Your task to perform on an android device: Open settings on Google Maps Image 0: 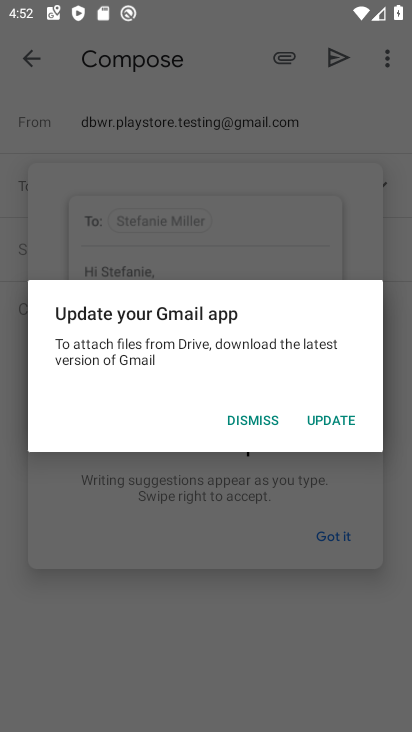
Step 0: press home button
Your task to perform on an android device: Open settings on Google Maps Image 1: 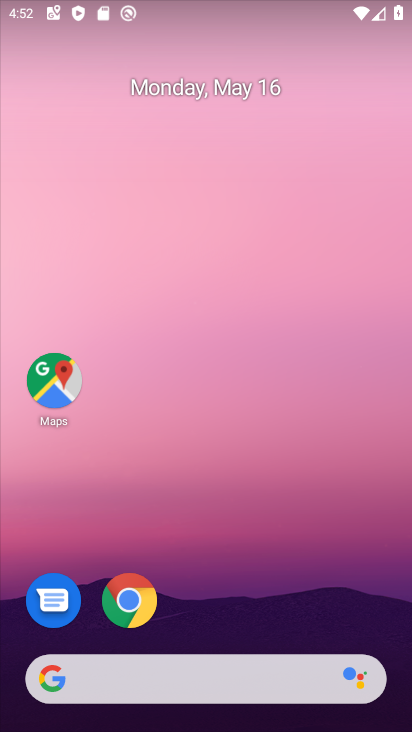
Step 1: drag from (202, 626) to (193, 3)
Your task to perform on an android device: Open settings on Google Maps Image 2: 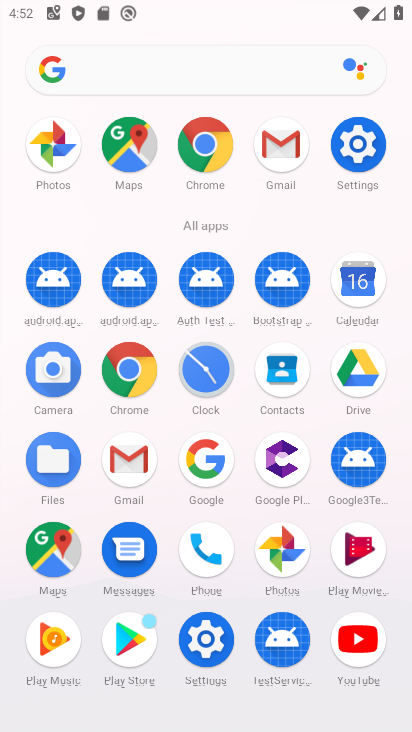
Step 2: click (48, 552)
Your task to perform on an android device: Open settings on Google Maps Image 3: 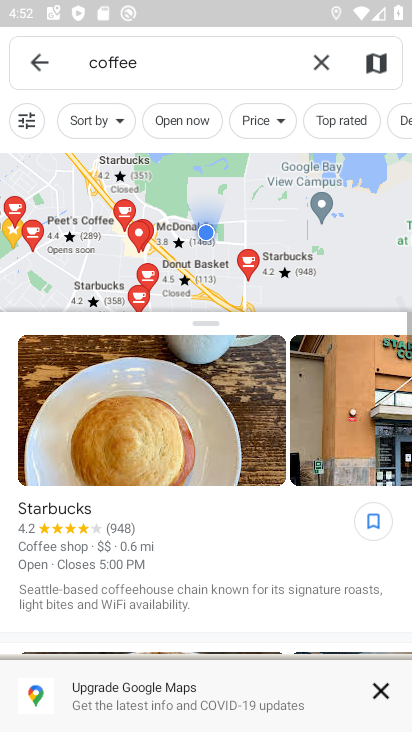
Step 3: click (32, 73)
Your task to perform on an android device: Open settings on Google Maps Image 4: 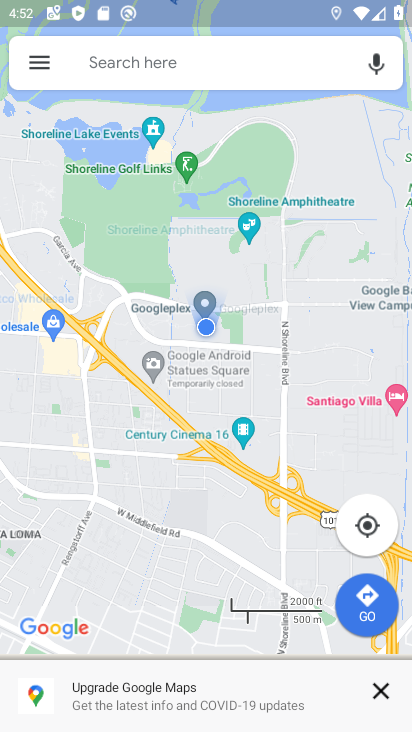
Step 4: click (33, 69)
Your task to perform on an android device: Open settings on Google Maps Image 5: 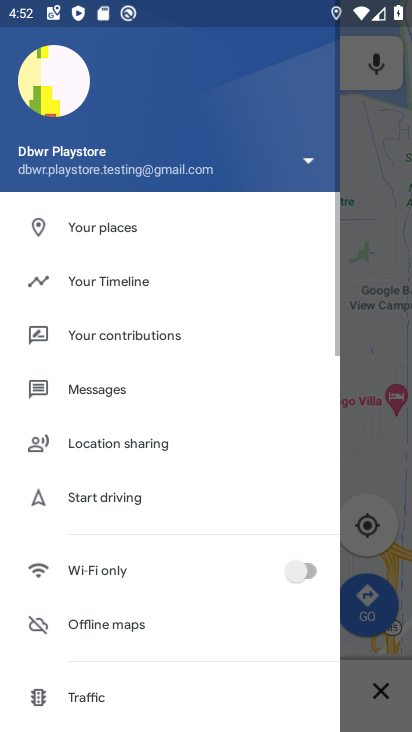
Step 5: drag from (97, 525) to (65, 134)
Your task to perform on an android device: Open settings on Google Maps Image 6: 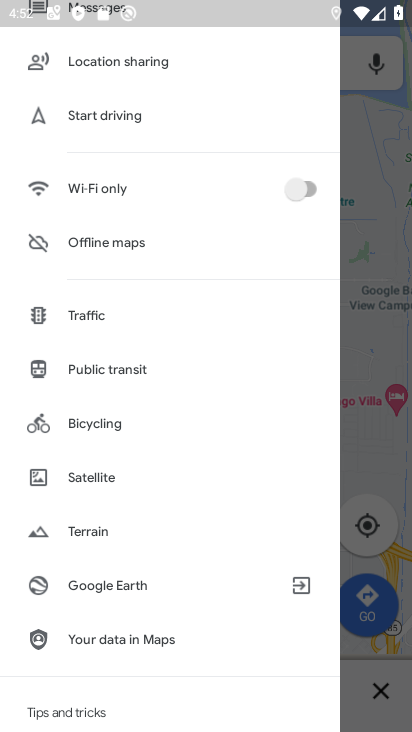
Step 6: drag from (103, 598) to (48, 146)
Your task to perform on an android device: Open settings on Google Maps Image 7: 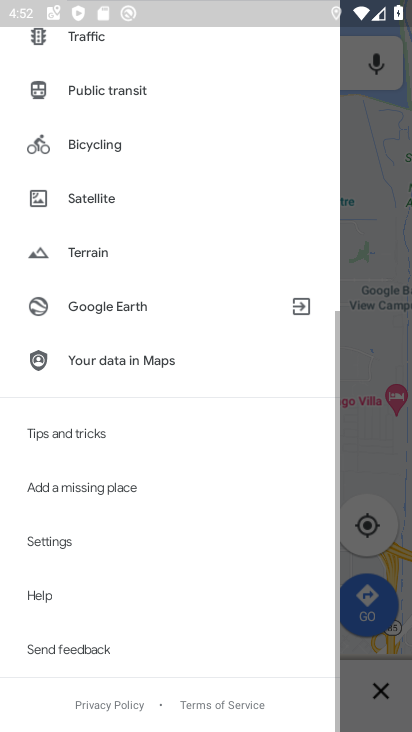
Step 7: click (95, 544)
Your task to perform on an android device: Open settings on Google Maps Image 8: 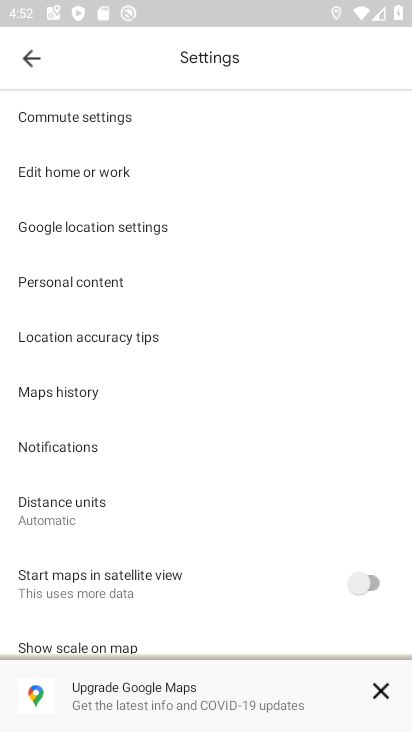
Step 8: task complete